Your task to perform on an android device: open app "Adobe Express: Graphic Design" (install if not already installed) Image 0: 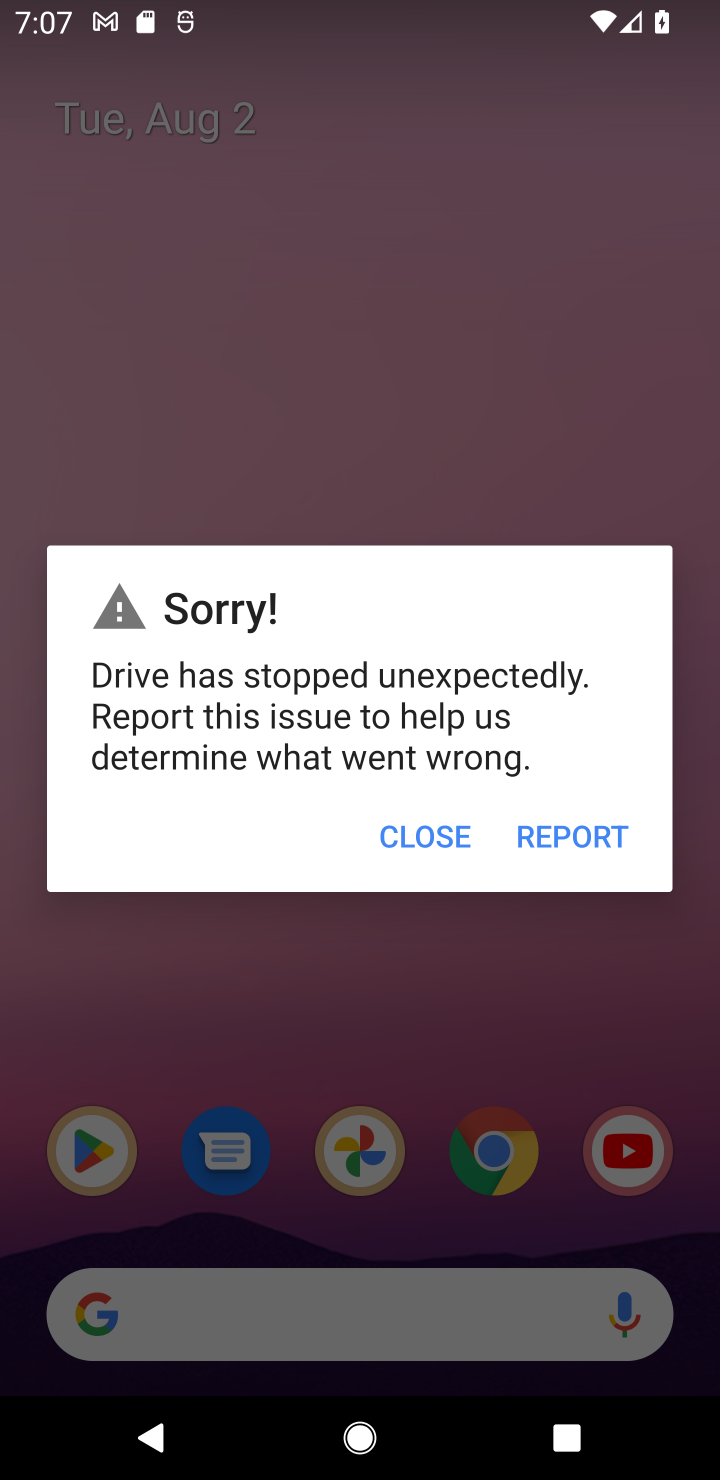
Step 0: press back button
Your task to perform on an android device: open app "Adobe Express: Graphic Design" (install if not already installed) Image 1: 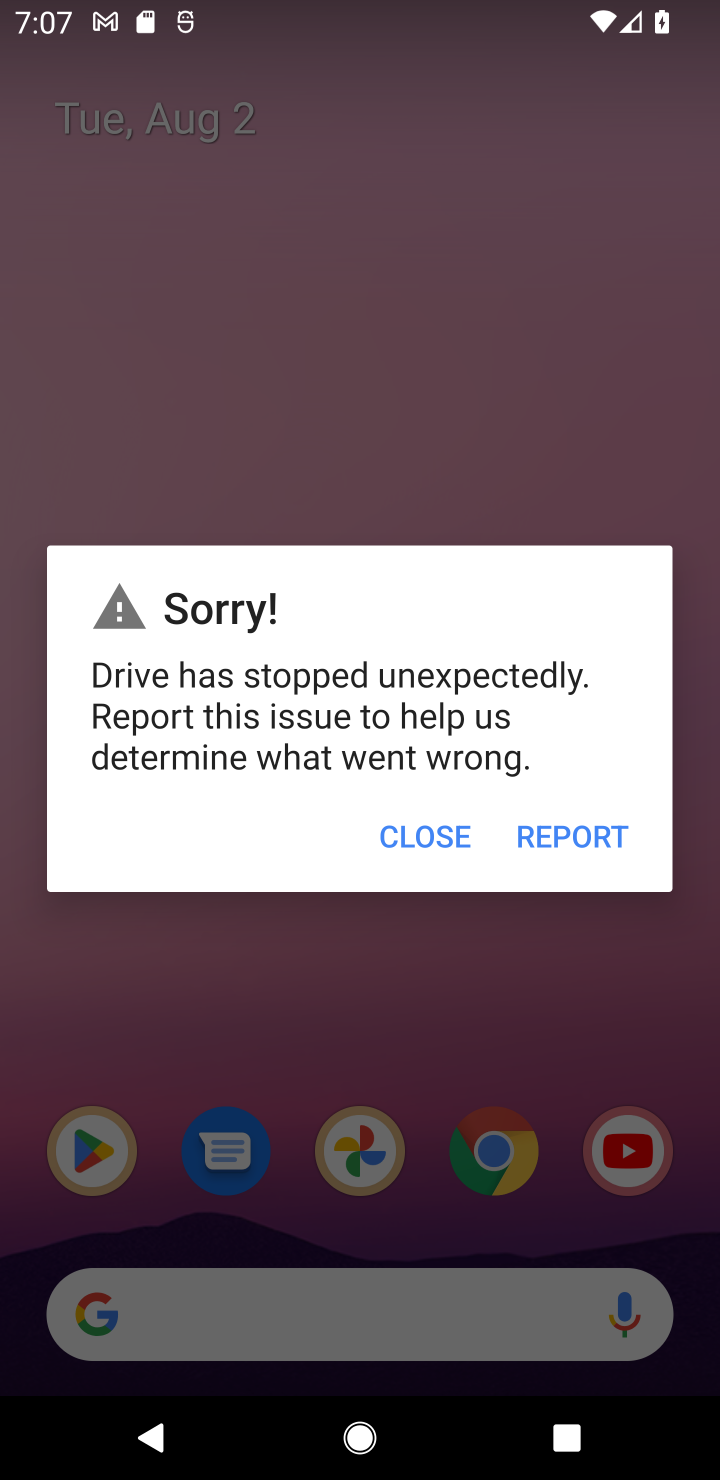
Step 1: press back button
Your task to perform on an android device: open app "Adobe Express: Graphic Design" (install if not already installed) Image 2: 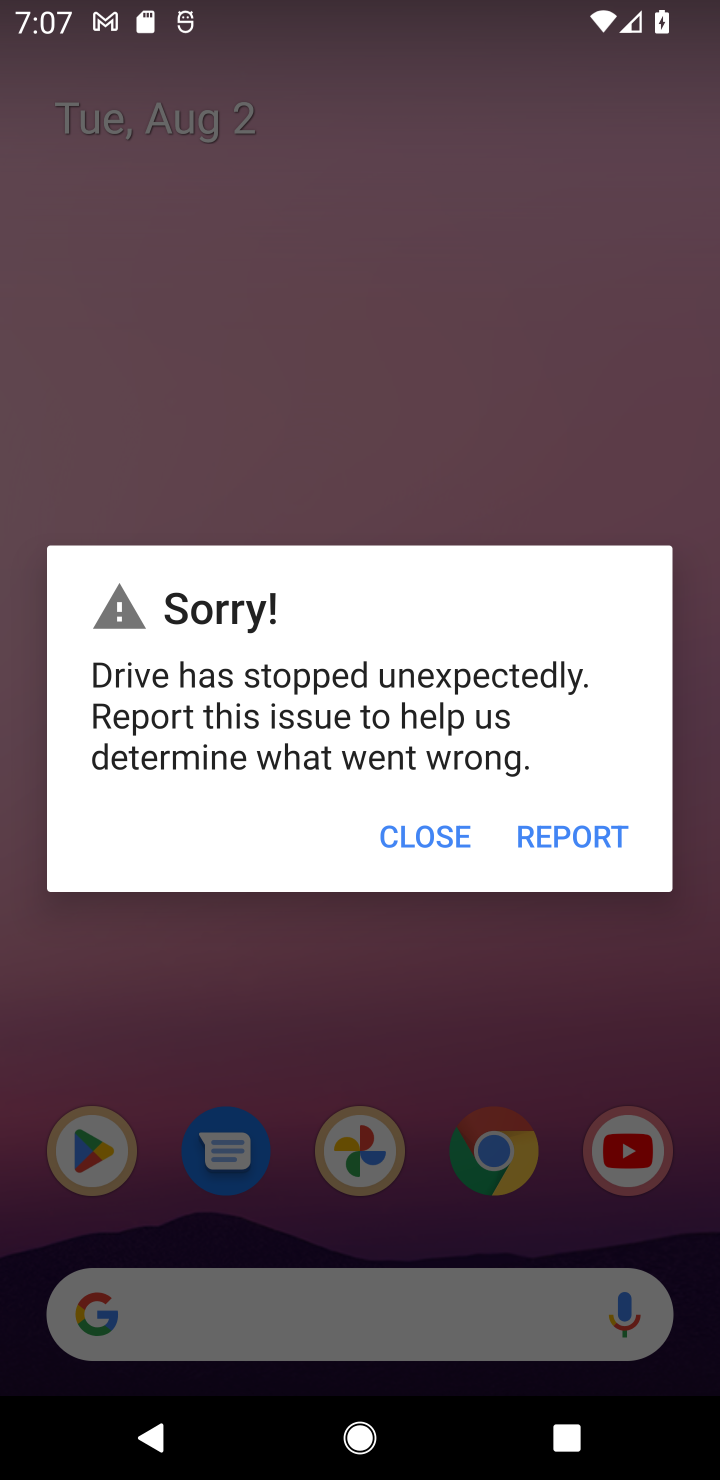
Step 2: click (444, 851)
Your task to perform on an android device: open app "Adobe Express: Graphic Design" (install if not already installed) Image 3: 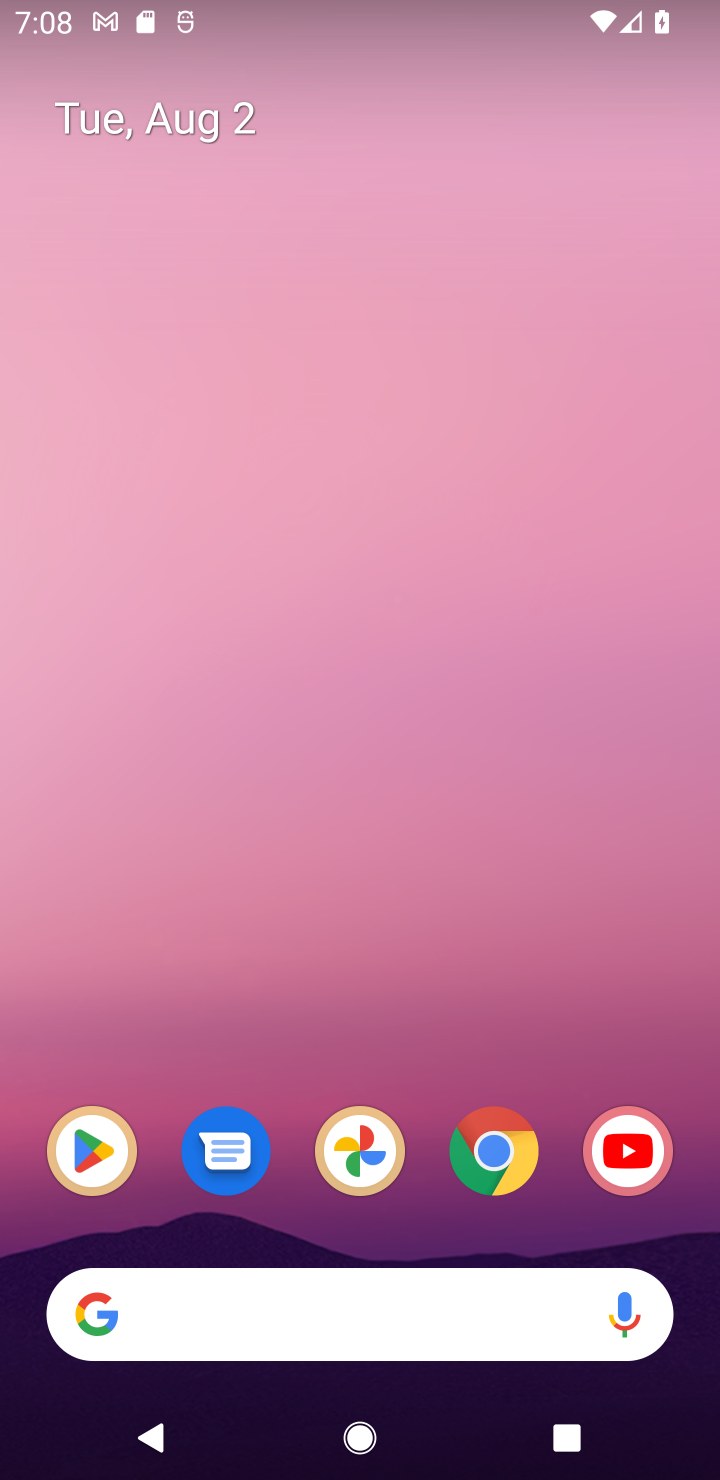
Step 3: click (86, 1137)
Your task to perform on an android device: open app "Adobe Express: Graphic Design" (install if not already installed) Image 4: 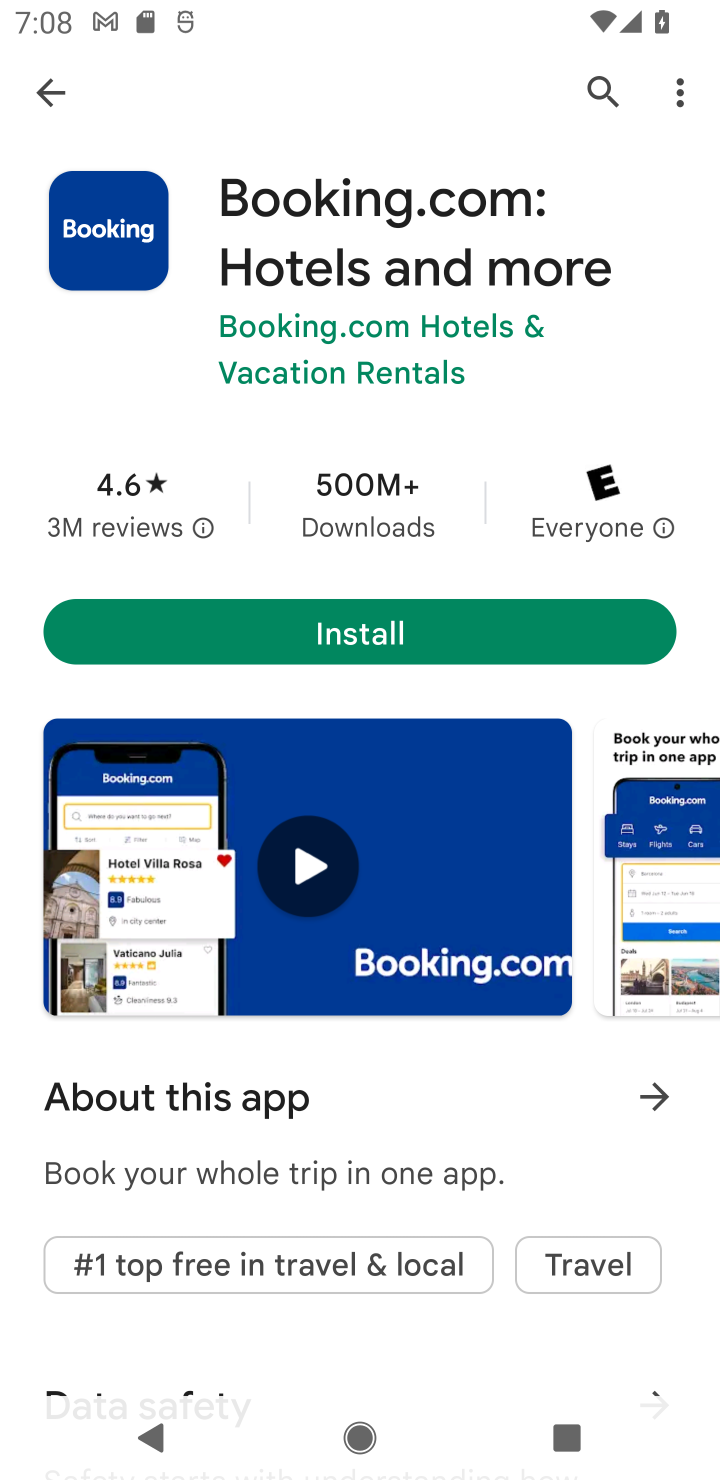
Step 4: click (596, 116)
Your task to perform on an android device: open app "Adobe Express: Graphic Design" (install if not already installed) Image 5: 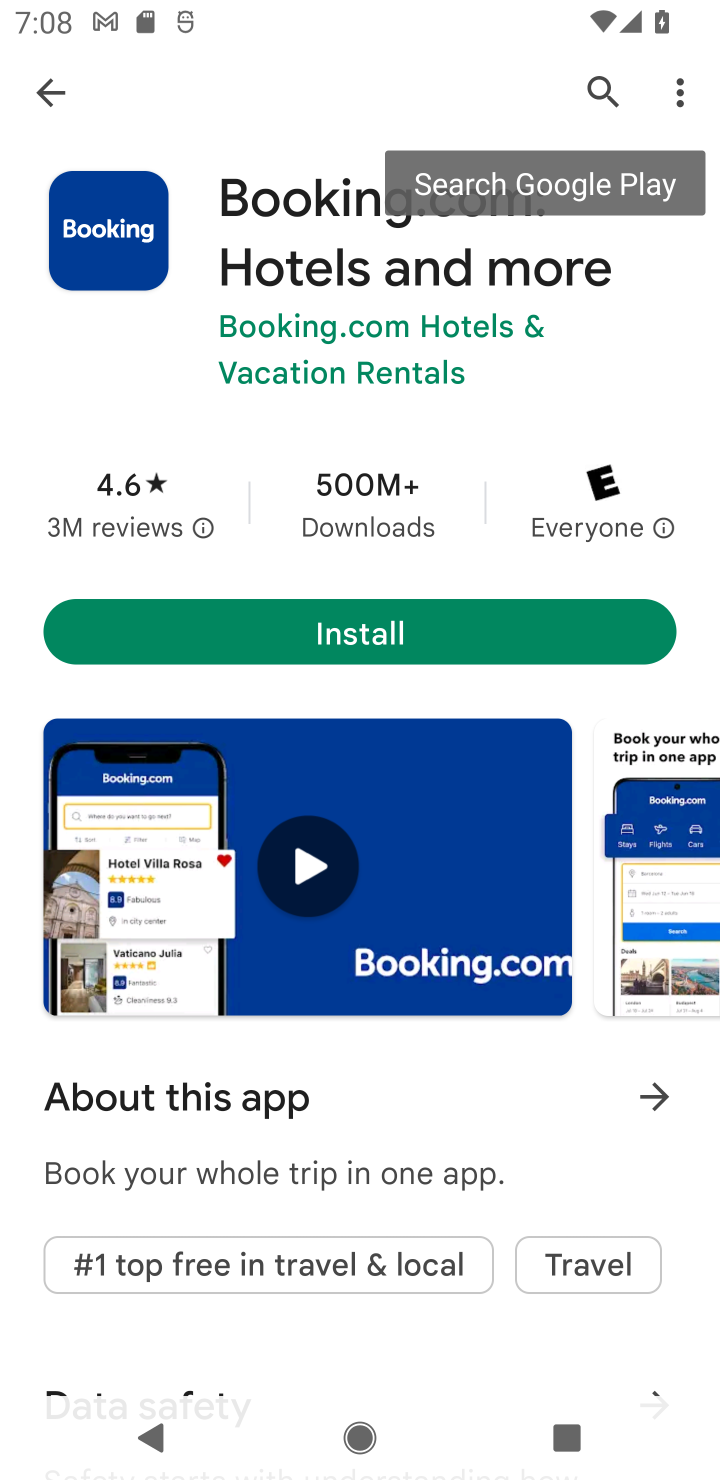
Step 5: click (618, 74)
Your task to perform on an android device: open app "Adobe Express: Graphic Design" (install if not already installed) Image 6: 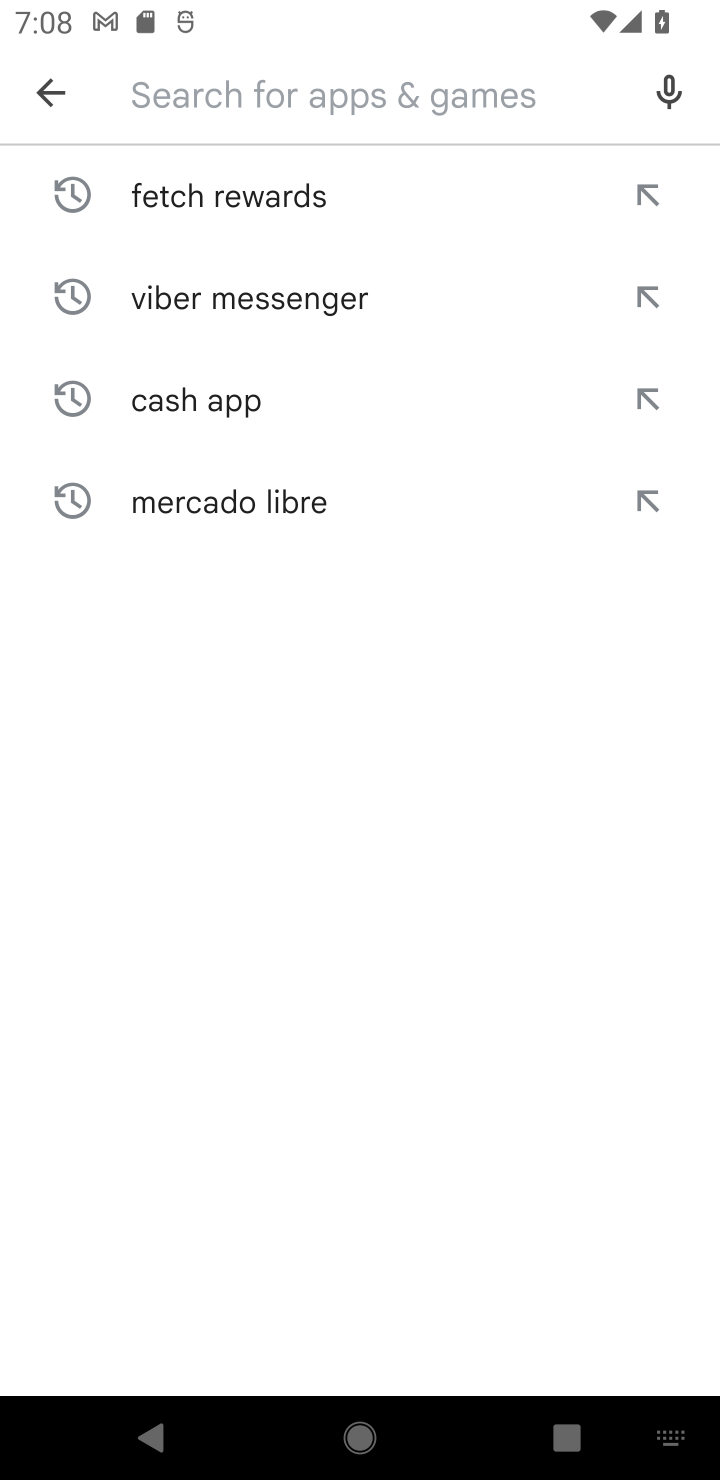
Step 6: type "Adobe Express: Graphic Design"
Your task to perform on an android device: open app "Adobe Express: Graphic Design" (install if not already installed) Image 7: 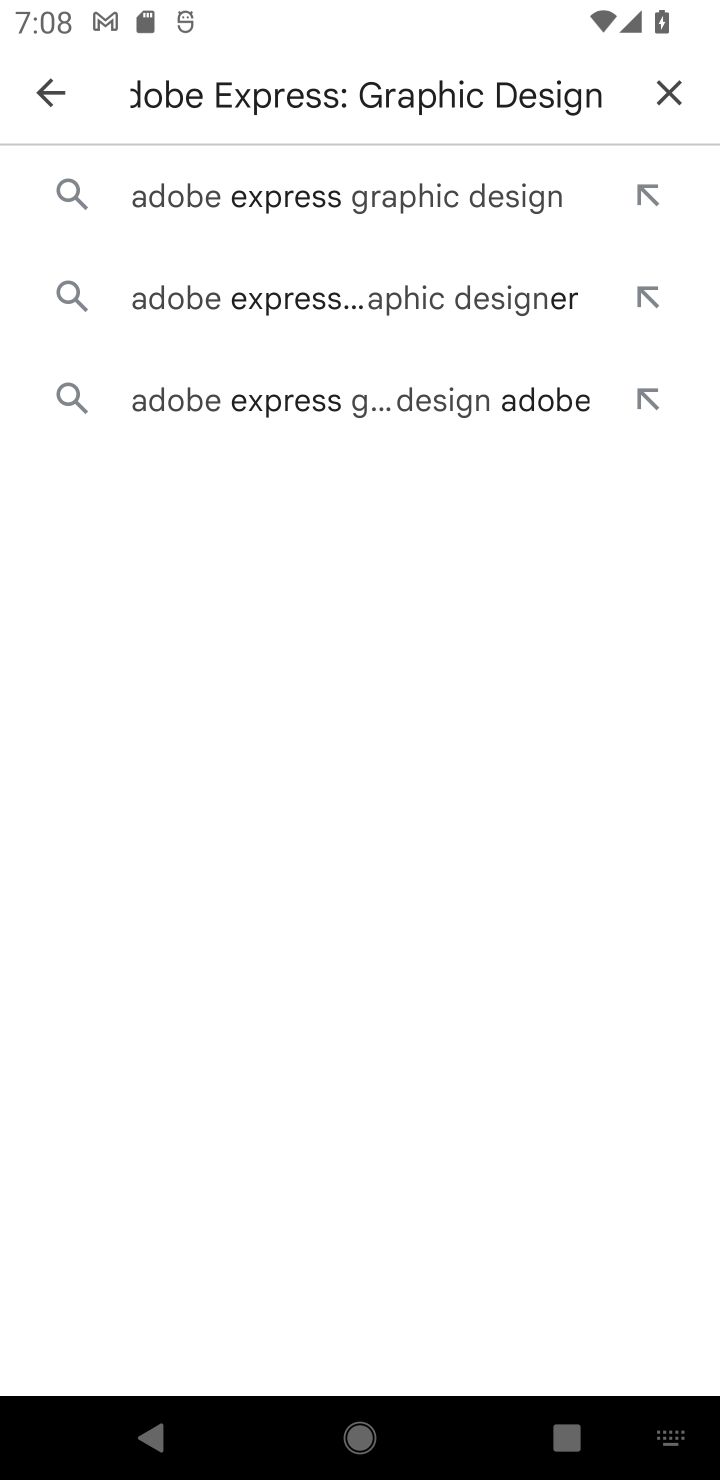
Step 7: click (244, 193)
Your task to perform on an android device: open app "Adobe Express: Graphic Design" (install if not already installed) Image 8: 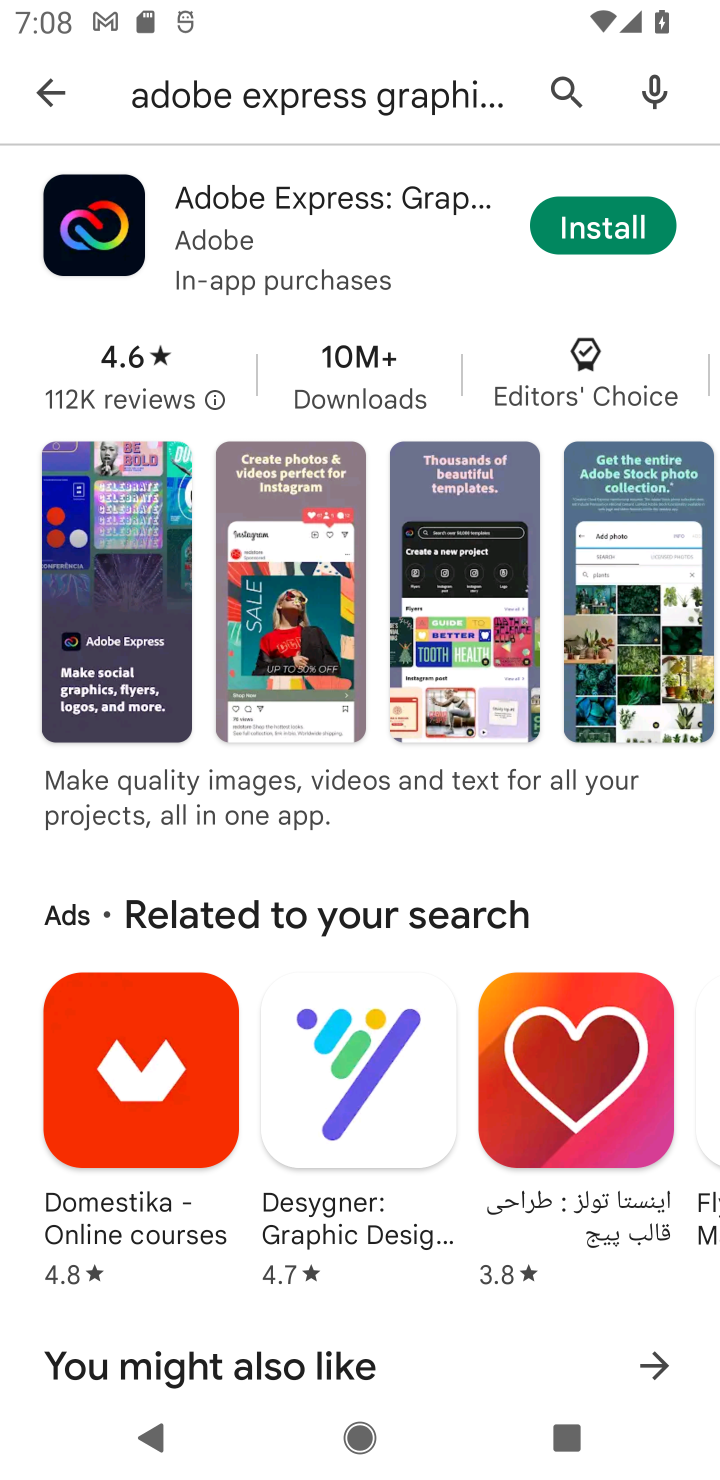
Step 8: click (587, 237)
Your task to perform on an android device: open app "Adobe Express: Graphic Design" (install if not already installed) Image 9: 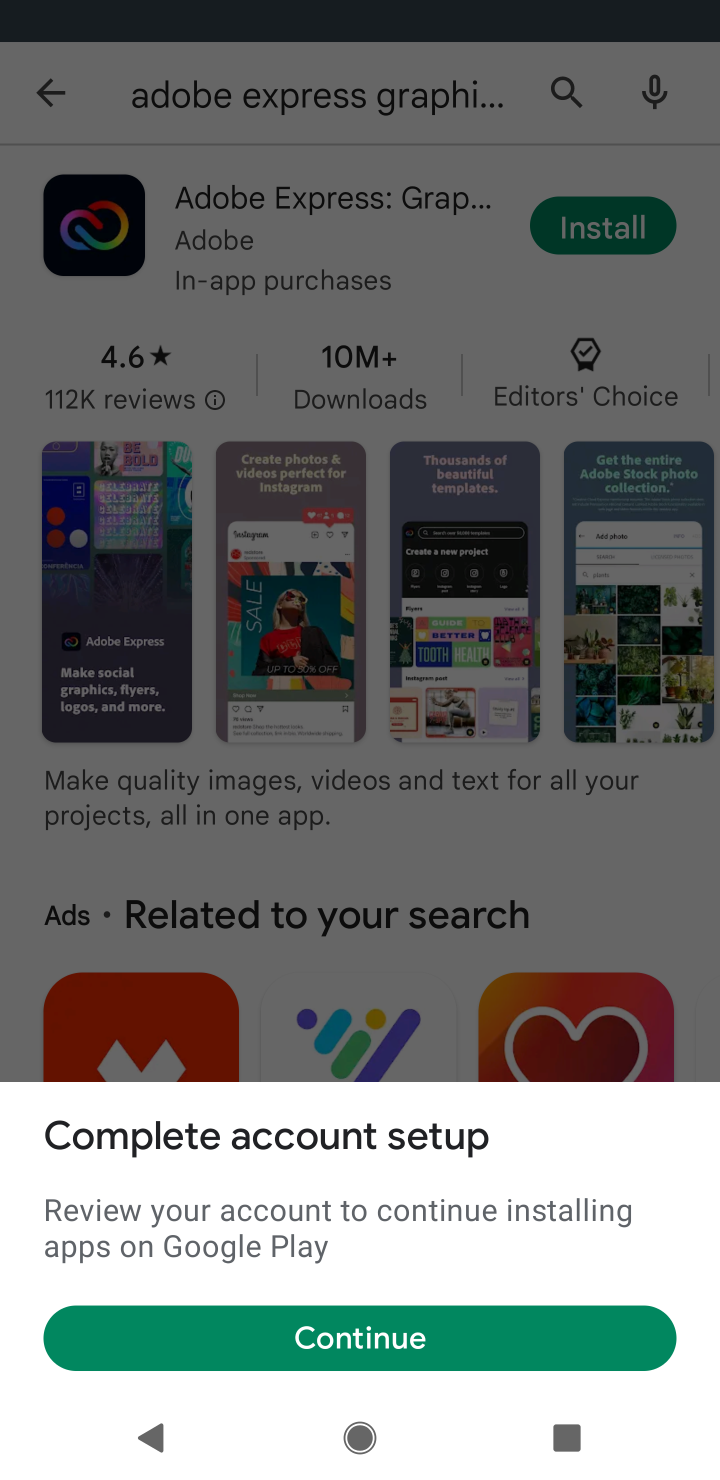
Step 9: click (385, 1322)
Your task to perform on an android device: open app "Adobe Express: Graphic Design" (install if not already installed) Image 10: 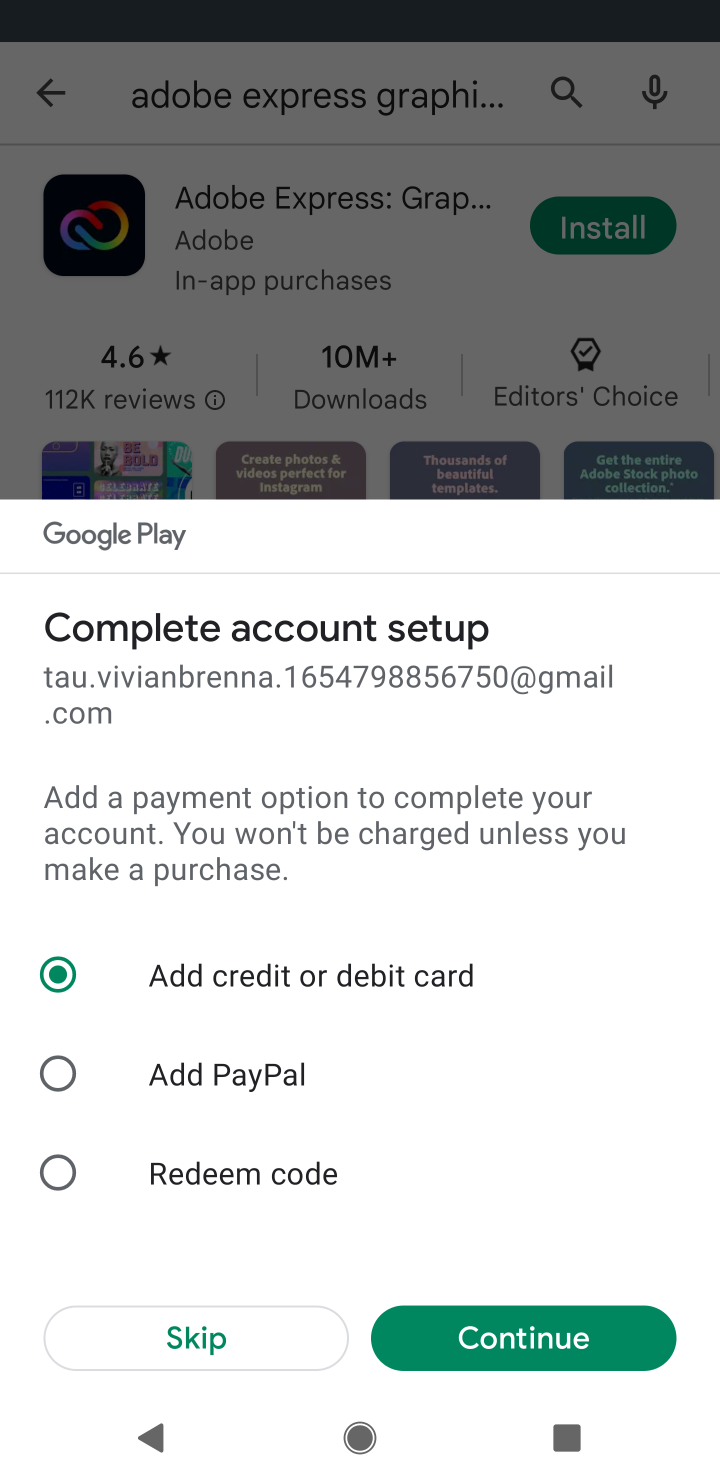
Step 10: click (241, 1351)
Your task to perform on an android device: open app "Adobe Express: Graphic Design" (install if not already installed) Image 11: 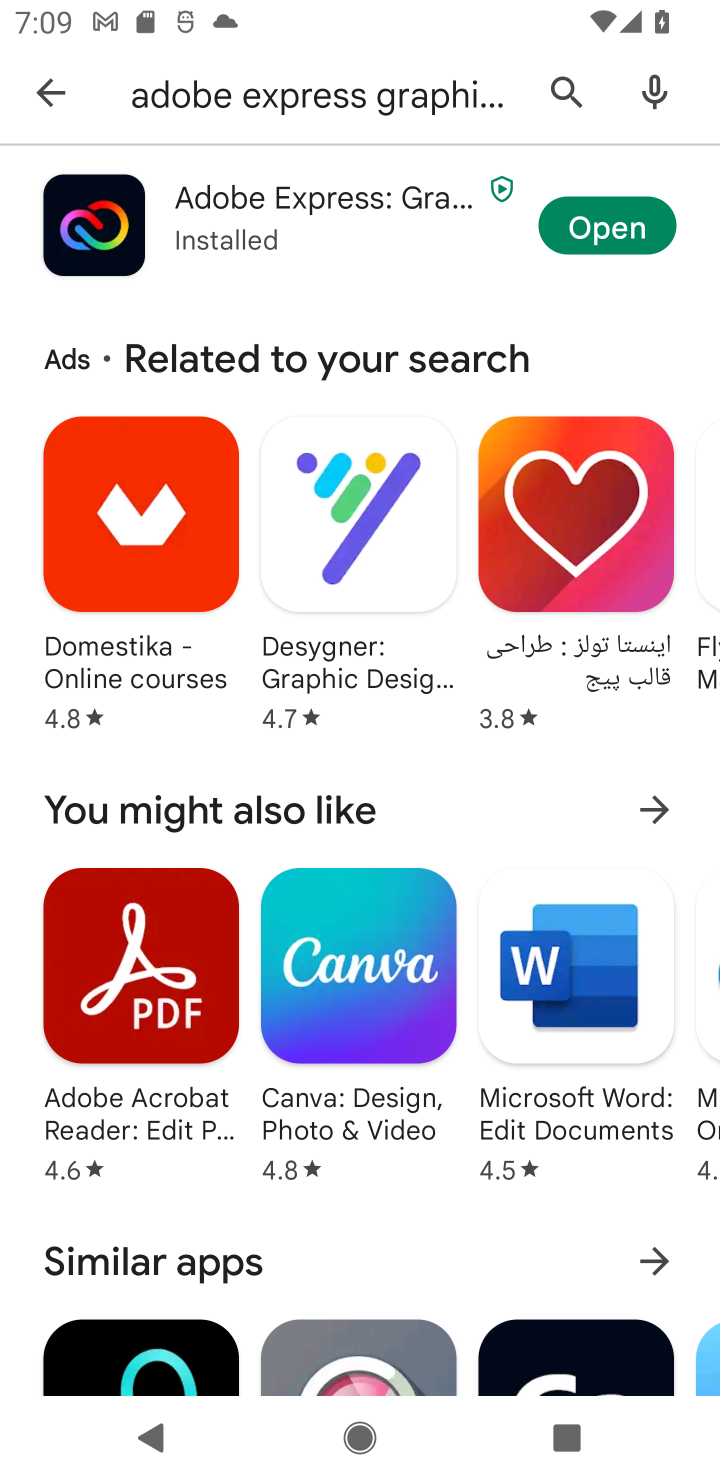
Step 11: click (589, 222)
Your task to perform on an android device: open app "Adobe Express: Graphic Design" (install if not already installed) Image 12: 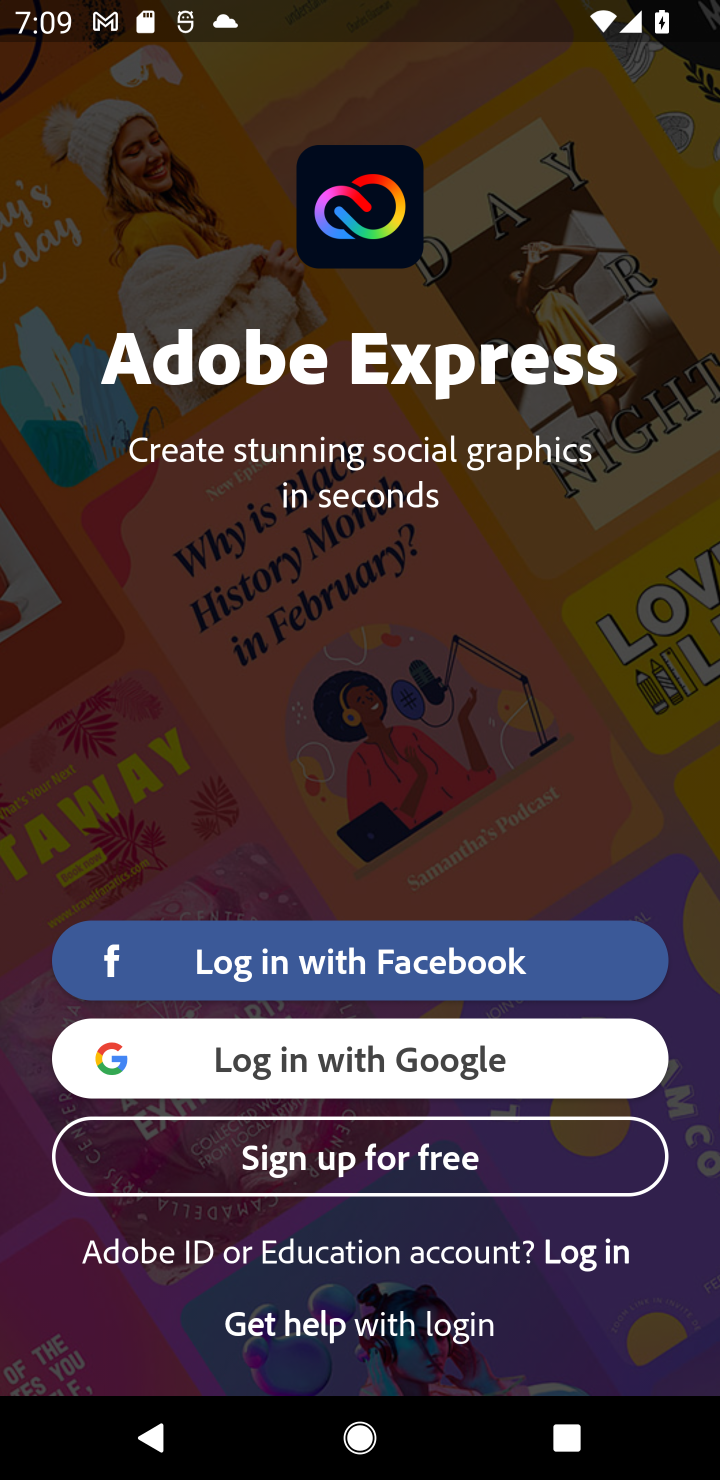
Step 12: task complete